Your task to perform on an android device: turn on priority inbox in the gmail app Image 0: 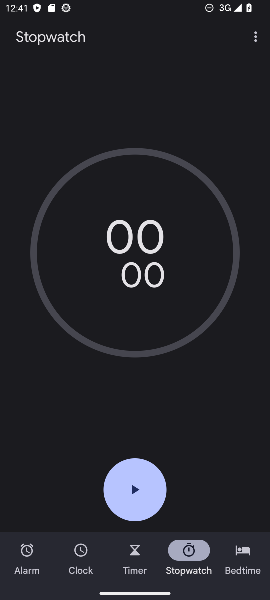
Step 0: press back button
Your task to perform on an android device: turn on priority inbox in the gmail app Image 1: 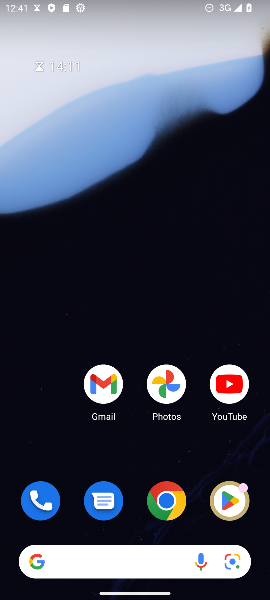
Step 1: click (100, 388)
Your task to perform on an android device: turn on priority inbox in the gmail app Image 2: 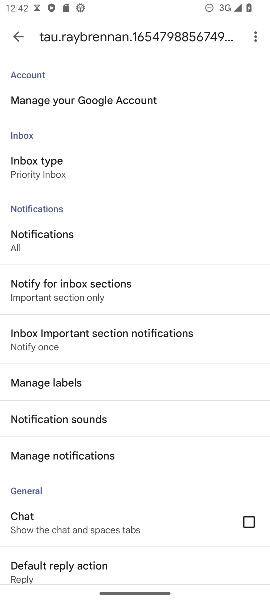
Step 2: click (44, 165)
Your task to perform on an android device: turn on priority inbox in the gmail app Image 3: 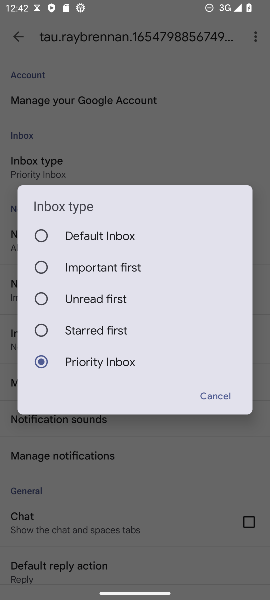
Step 3: task complete